Your task to perform on an android device: Open the stopwatch Image 0: 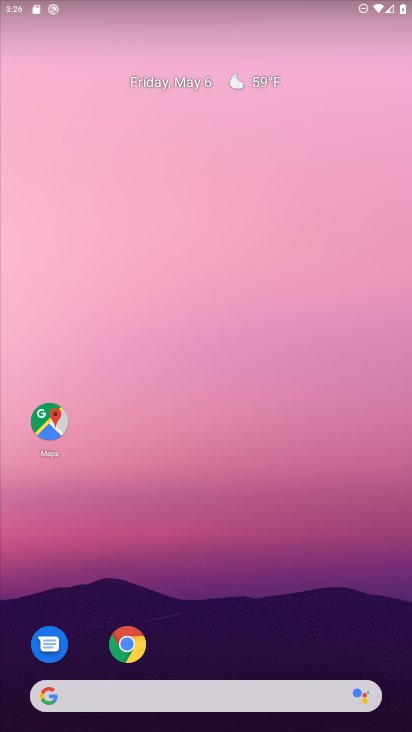
Step 0: drag from (205, 637) to (205, 201)
Your task to perform on an android device: Open the stopwatch Image 1: 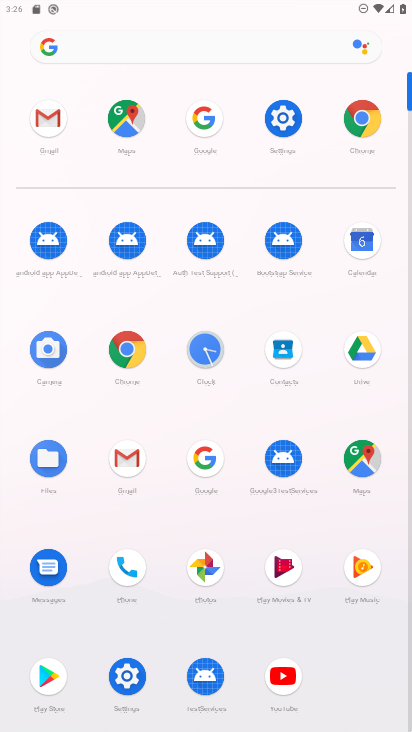
Step 1: click (203, 351)
Your task to perform on an android device: Open the stopwatch Image 2: 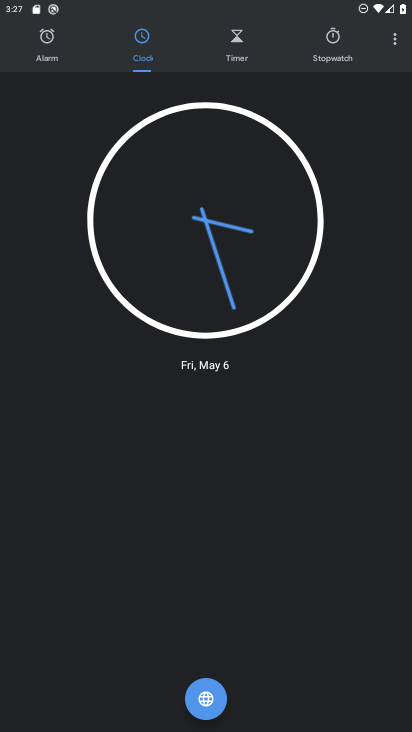
Step 2: click (337, 54)
Your task to perform on an android device: Open the stopwatch Image 3: 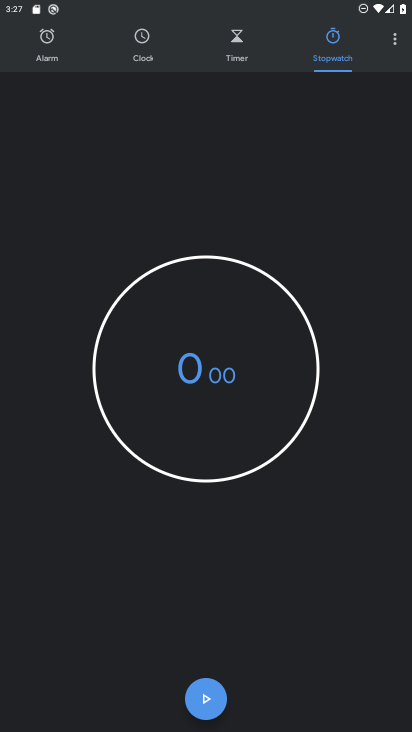
Step 3: task complete